Your task to perform on an android device: Find coffee shops on Maps Image 0: 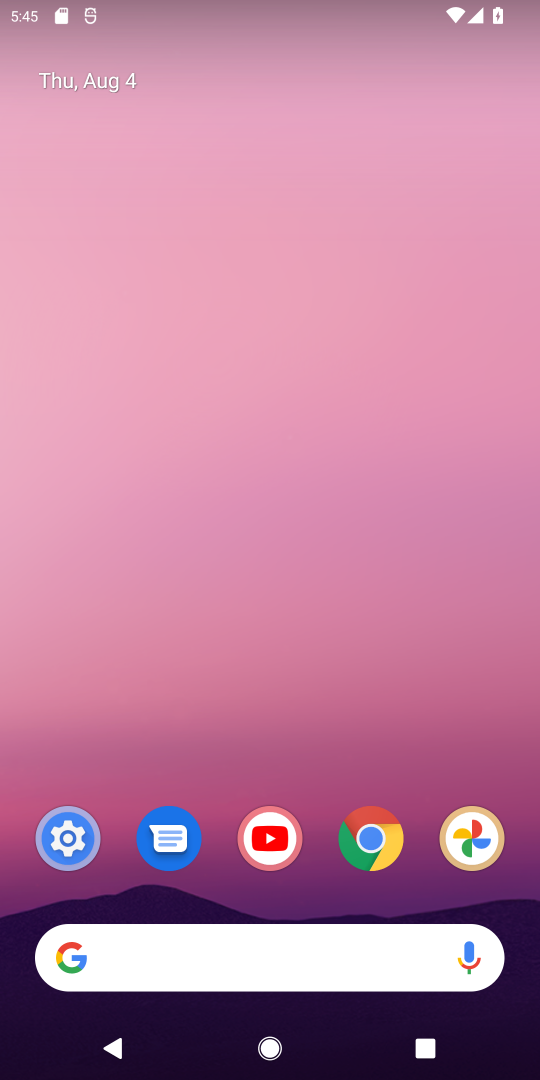
Step 0: press home button
Your task to perform on an android device: Find coffee shops on Maps Image 1: 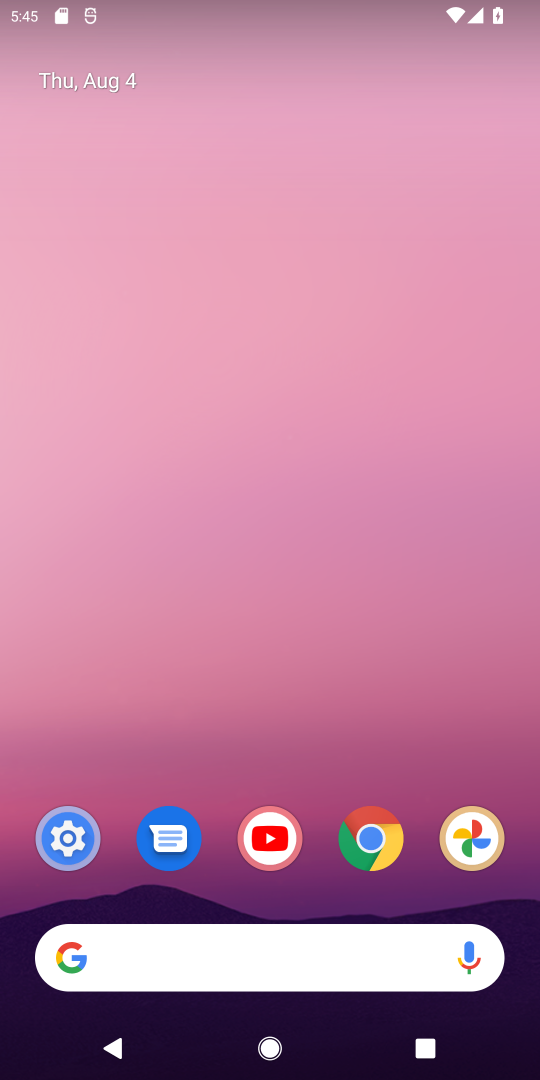
Step 1: click (375, 866)
Your task to perform on an android device: Find coffee shops on Maps Image 2: 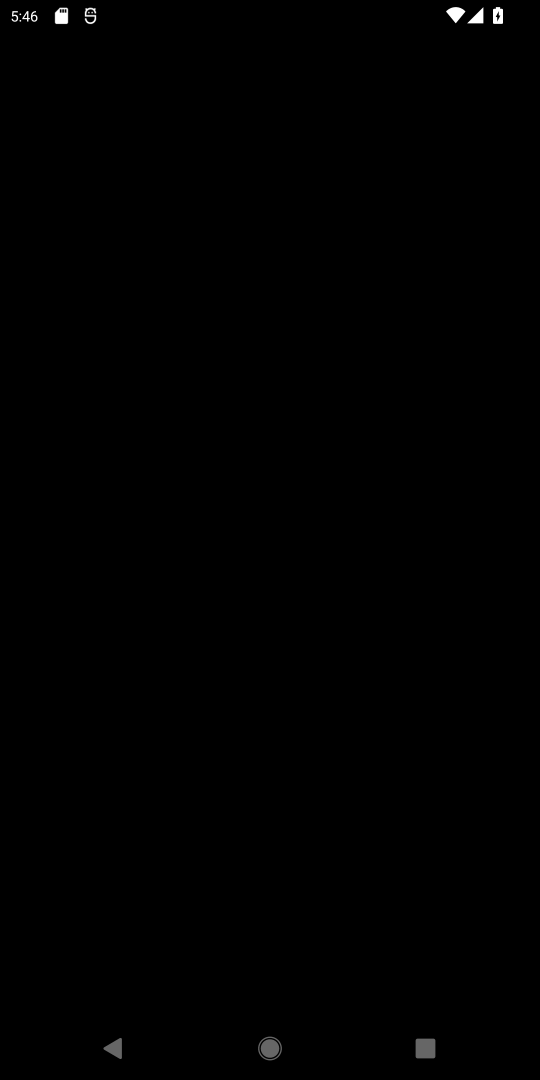
Step 2: press home button
Your task to perform on an android device: Find coffee shops on Maps Image 3: 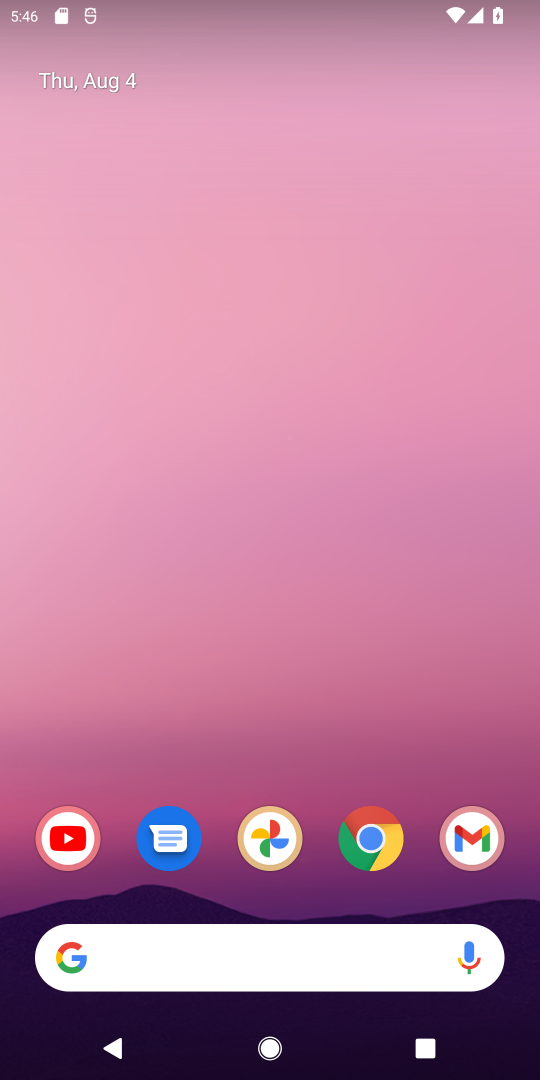
Step 3: drag from (296, 868) to (289, 7)
Your task to perform on an android device: Find coffee shops on Maps Image 4: 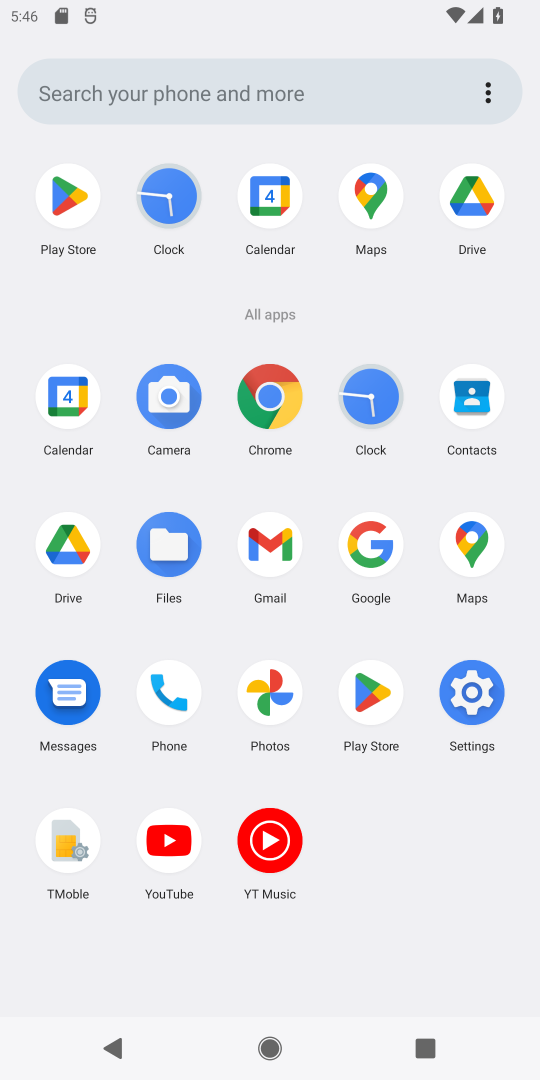
Step 4: click (364, 227)
Your task to perform on an android device: Find coffee shops on Maps Image 5: 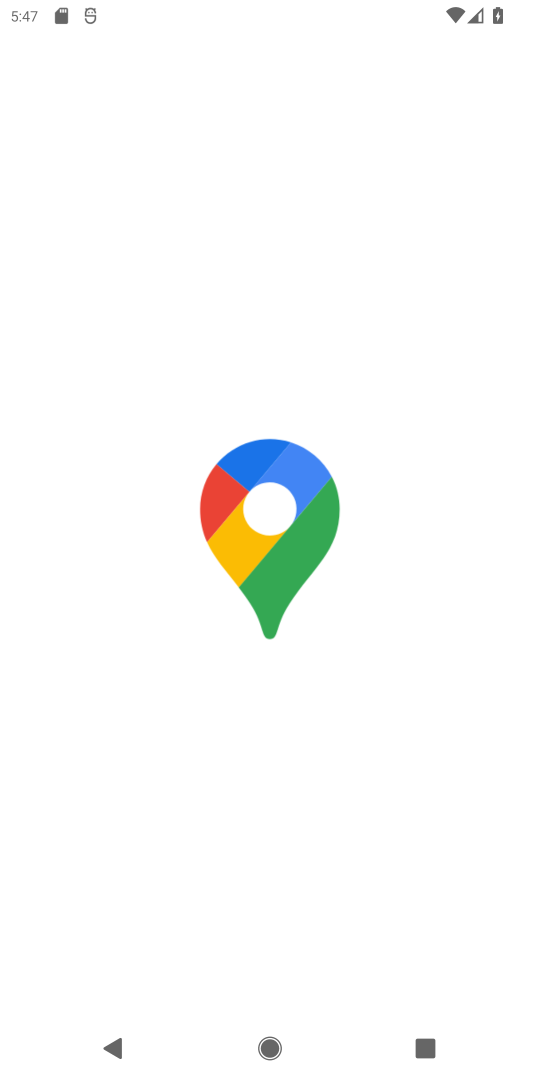
Step 5: task complete